Your task to perform on an android device: turn vacation reply on in the gmail app Image 0: 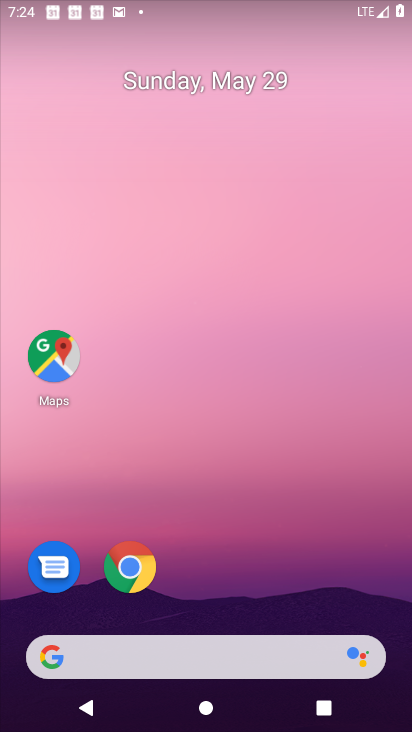
Step 0: click (129, 559)
Your task to perform on an android device: turn vacation reply on in the gmail app Image 1: 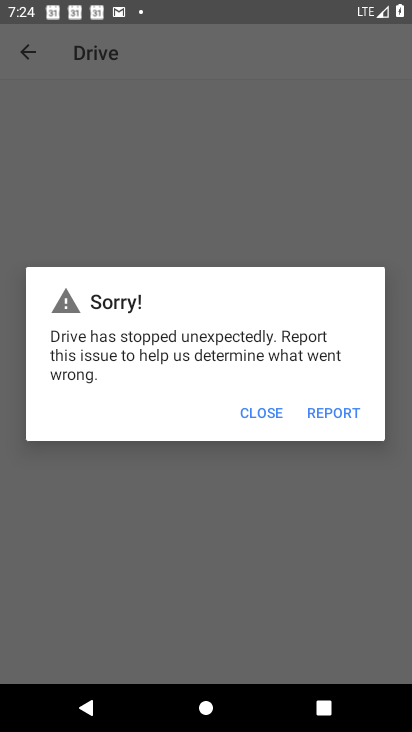
Step 1: press home button
Your task to perform on an android device: turn vacation reply on in the gmail app Image 2: 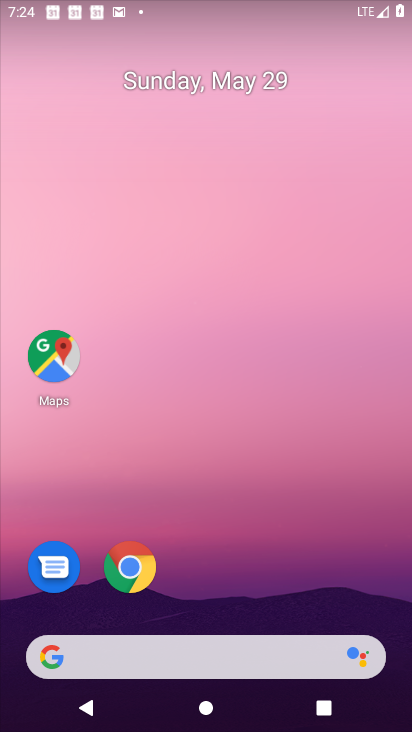
Step 2: drag from (212, 616) to (188, 225)
Your task to perform on an android device: turn vacation reply on in the gmail app Image 3: 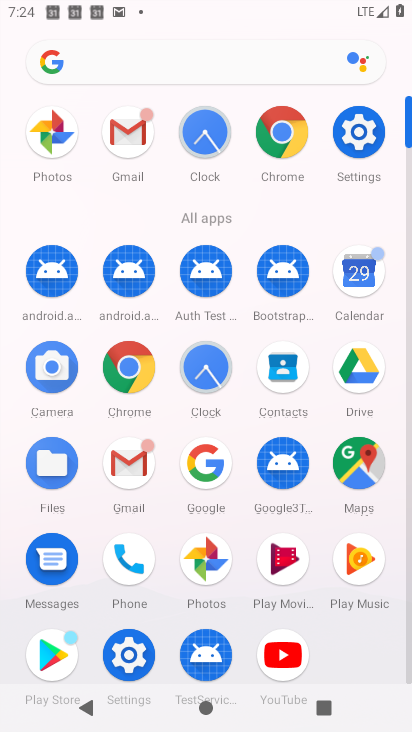
Step 3: click (137, 458)
Your task to perform on an android device: turn vacation reply on in the gmail app Image 4: 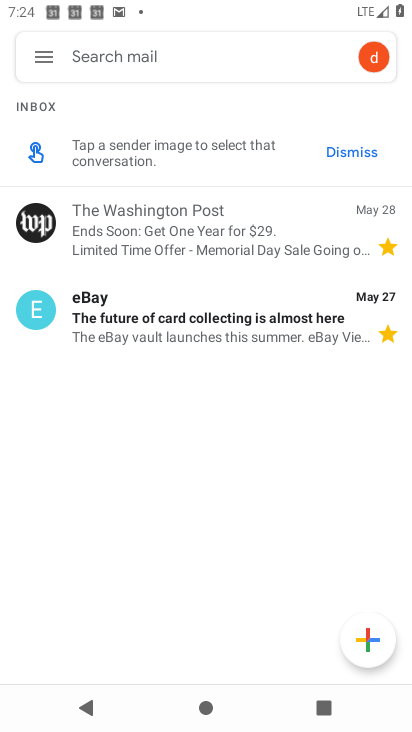
Step 4: click (34, 56)
Your task to perform on an android device: turn vacation reply on in the gmail app Image 5: 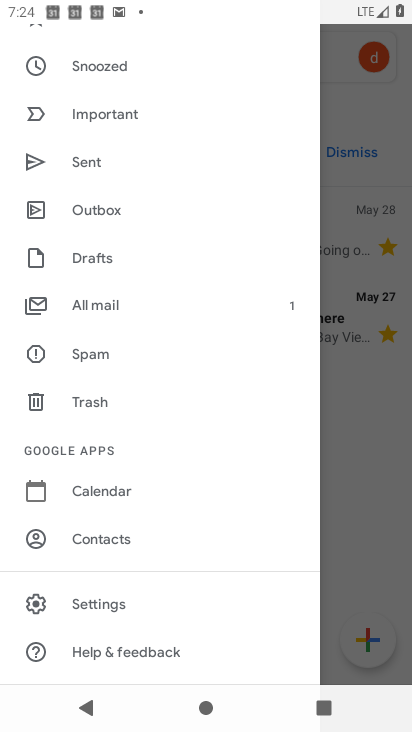
Step 5: click (113, 601)
Your task to perform on an android device: turn vacation reply on in the gmail app Image 6: 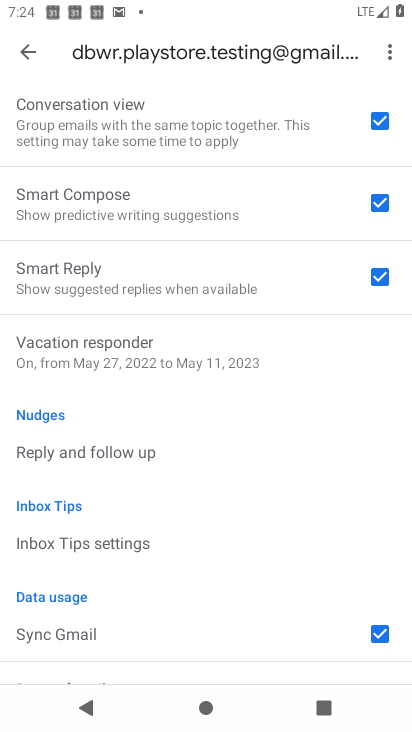
Step 6: drag from (148, 594) to (137, 255)
Your task to perform on an android device: turn vacation reply on in the gmail app Image 7: 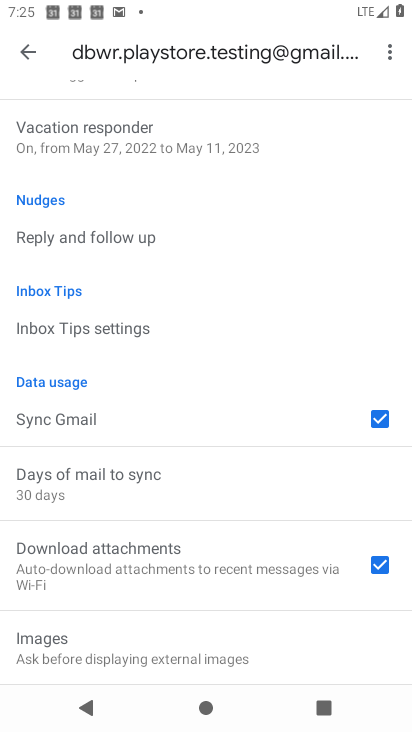
Step 7: drag from (165, 609) to (197, 217)
Your task to perform on an android device: turn vacation reply on in the gmail app Image 8: 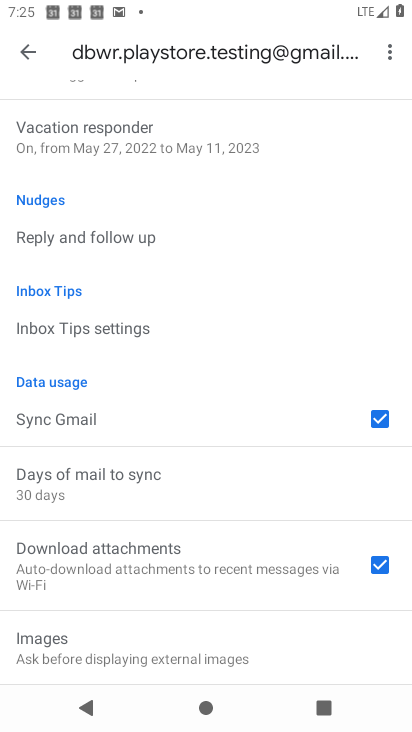
Step 8: drag from (94, 222) to (110, 324)
Your task to perform on an android device: turn vacation reply on in the gmail app Image 9: 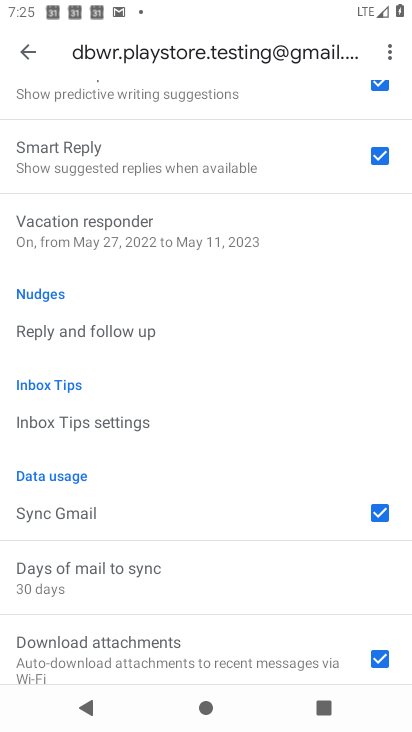
Step 9: click (83, 223)
Your task to perform on an android device: turn vacation reply on in the gmail app Image 10: 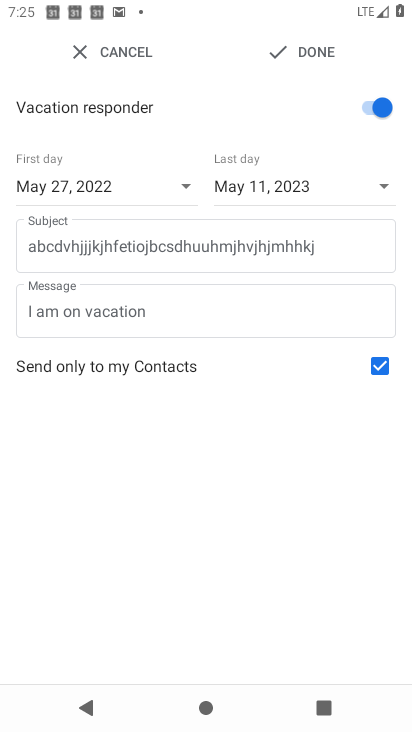
Step 10: task complete